Your task to perform on an android device: What's the latest news in tech? Image 0: 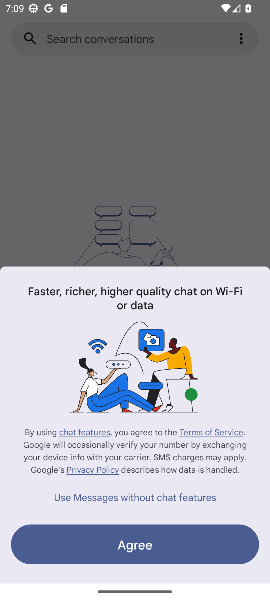
Step 0: press home button
Your task to perform on an android device: What's the latest news in tech? Image 1: 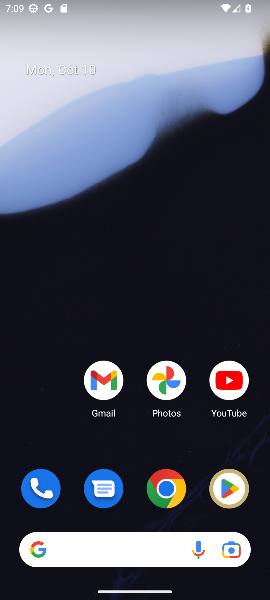
Step 1: drag from (131, 454) to (160, 16)
Your task to perform on an android device: What's the latest news in tech? Image 2: 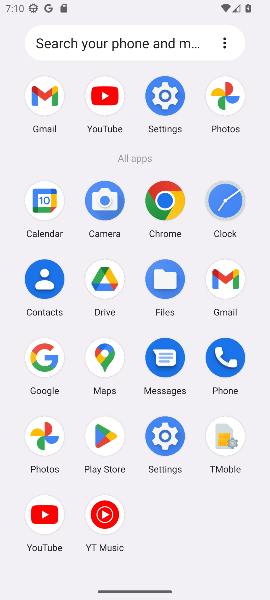
Step 2: click (168, 204)
Your task to perform on an android device: What's the latest news in tech? Image 3: 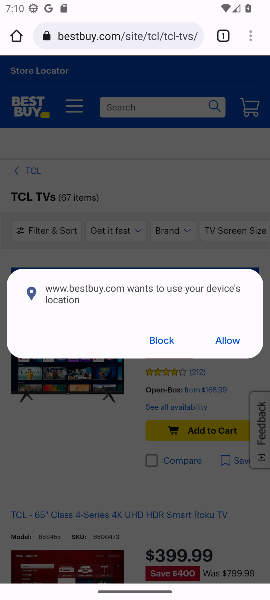
Step 3: click (72, 40)
Your task to perform on an android device: What's the latest news in tech? Image 4: 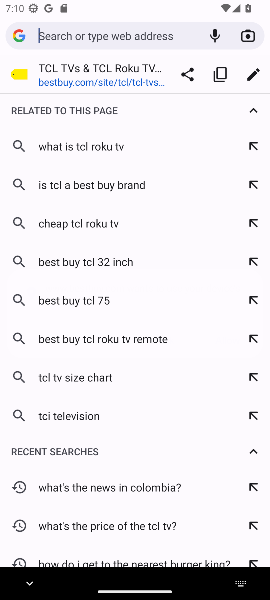
Step 4: type "What's the letest news in tech?"
Your task to perform on an android device: What's the latest news in tech? Image 5: 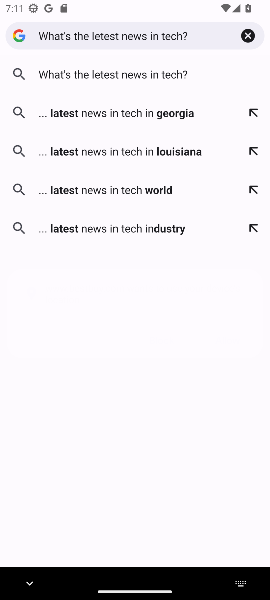
Step 5: press enter
Your task to perform on an android device: What's the latest news in tech? Image 6: 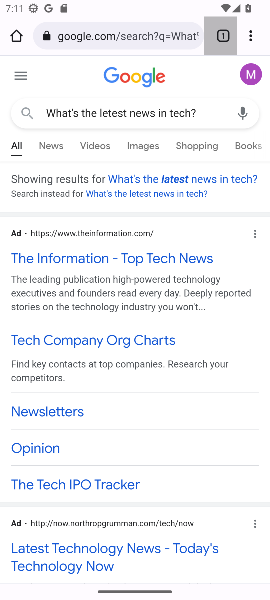
Step 6: drag from (168, 462) to (99, 59)
Your task to perform on an android device: What's the latest news in tech? Image 7: 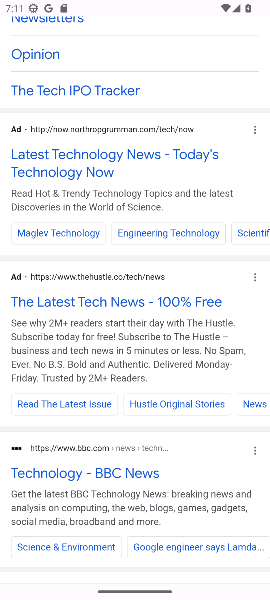
Step 7: drag from (134, 510) to (121, 74)
Your task to perform on an android device: What's the latest news in tech? Image 8: 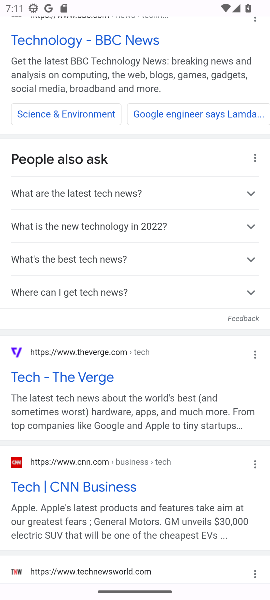
Step 8: drag from (141, 48) to (131, 453)
Your task to perform on an android device: What's the latest news in tech? Image 9: 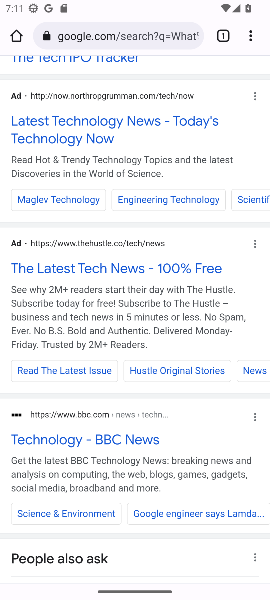
Step 9: click (101, 434)
Your task to perform on an android device: What's the latest news in tech? Image 10: 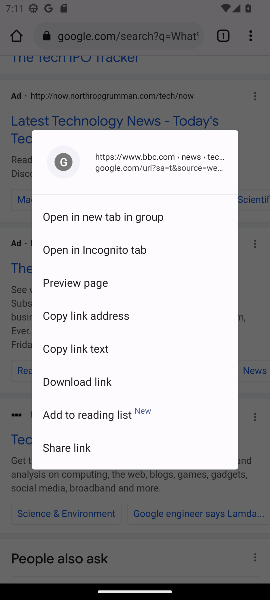
Step 10: click (144, 471)
Your task to perform on an android device: What's the latest news in tech? Image 11: 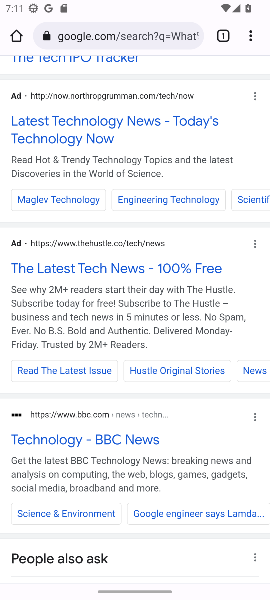
Step 11: click (89, 443)
Your task to perform on an android device: What's the latest news in tech? Image 12: 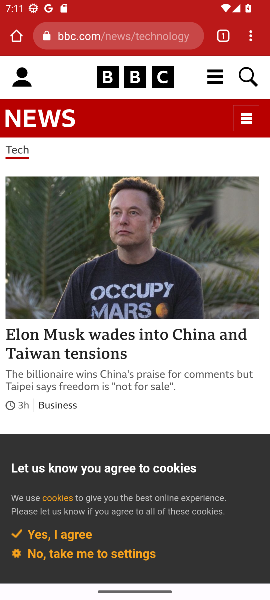
Step 12: task complete